Your task to perform on an android device: set default search engine in the chrome app Image 0: 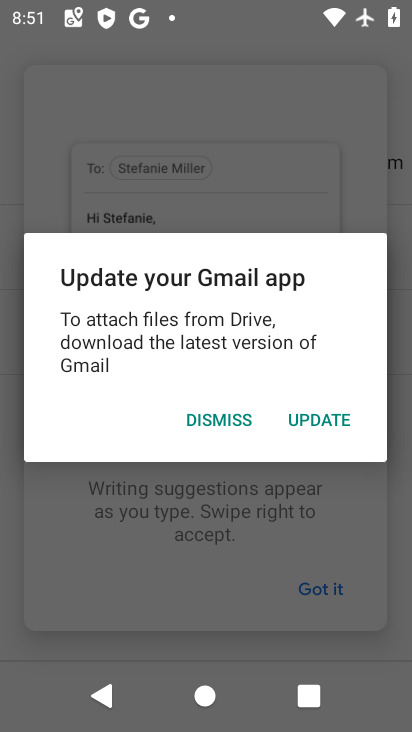
Step 0: press home button
Your task to perform on an android device: set default search engine in the chrome app Image 1: 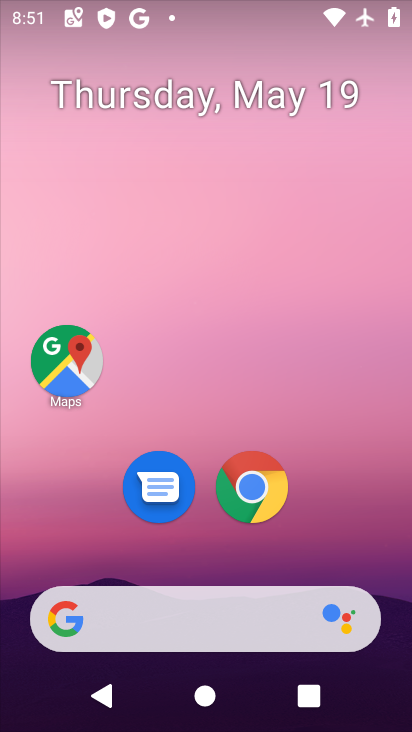
Step 1: click (264, 499)
Your task to perform on an android device: set default search engine in the chrome app Image 2: 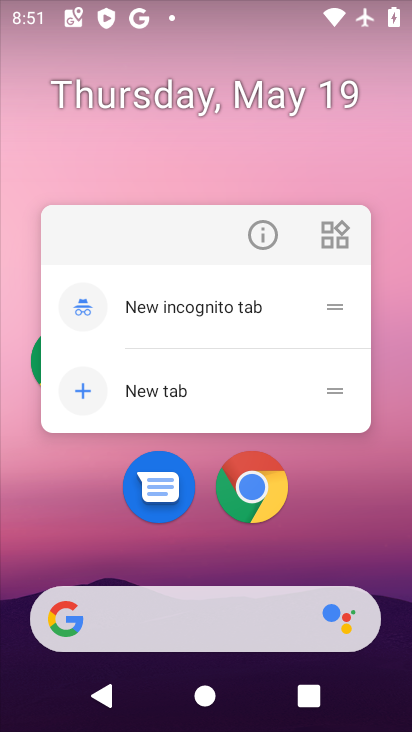
Step 2: click (255, 491)
Your task to perform on an android device: set default search engine in the chrome app Image 3: 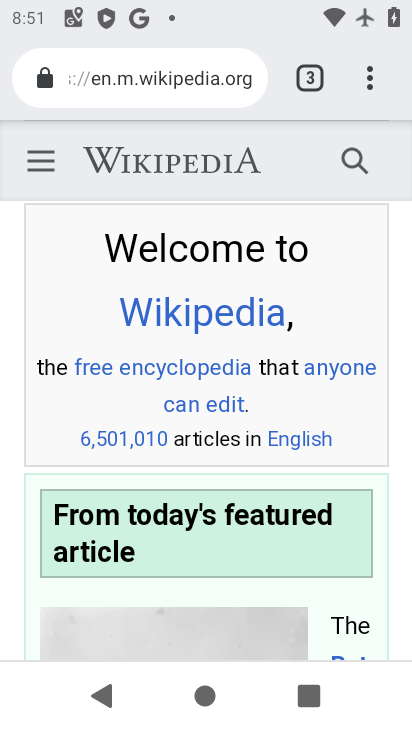
Step 3: drag from (364, 69) to (110, 546)
Your task to perform on an android device: set default search engine in the chrome app Image 4: 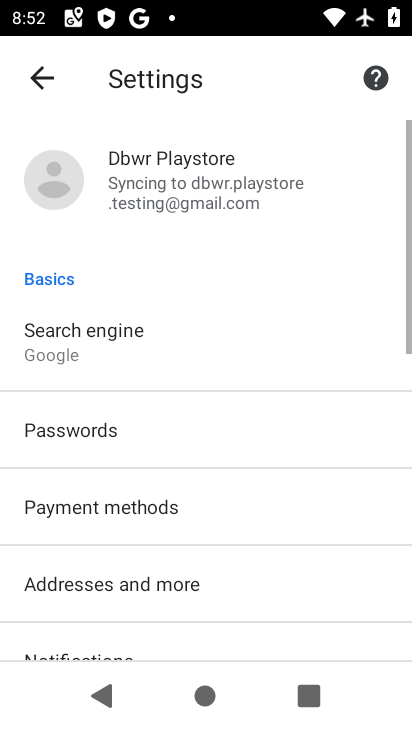
Step 4: click (68, 346)
Your task to perform on an android device: set default search engine in the chrome app Image 5: 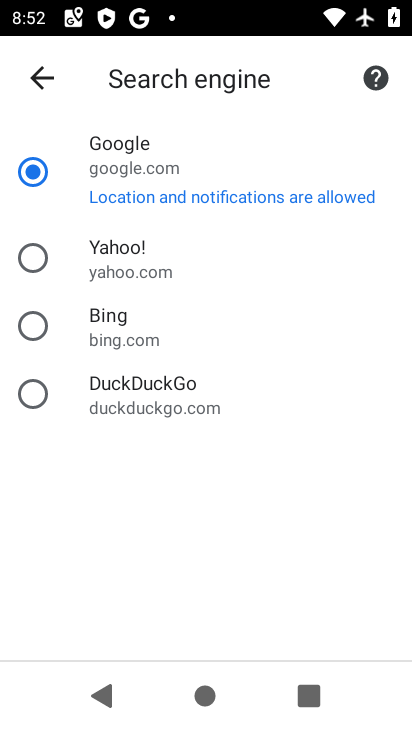
Step 5: click (41, 160)
Your task to perform on an android device: set default search engine in the chrome app Image 6: 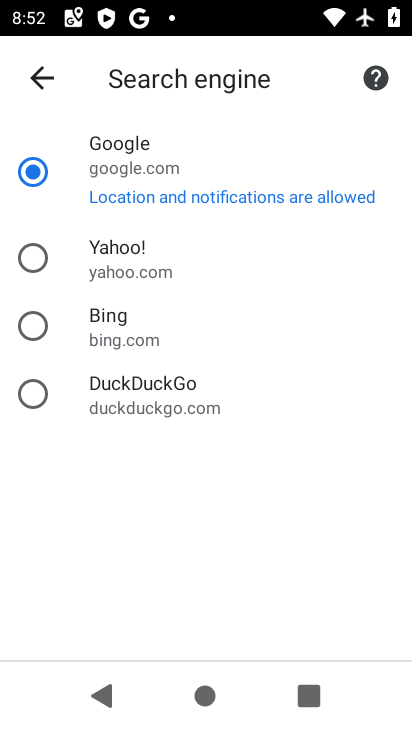
Step 6: task complete